Your task to perform on an android device: change timer sound Image 0: 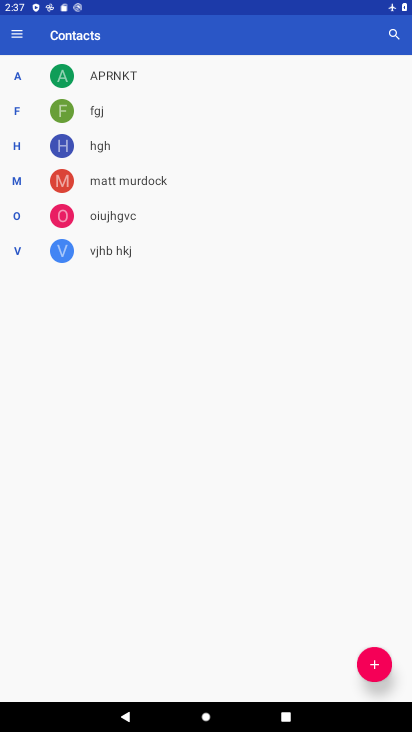
Step 0: press home button
Your task to perform on an android device: change timer sound Image 1: 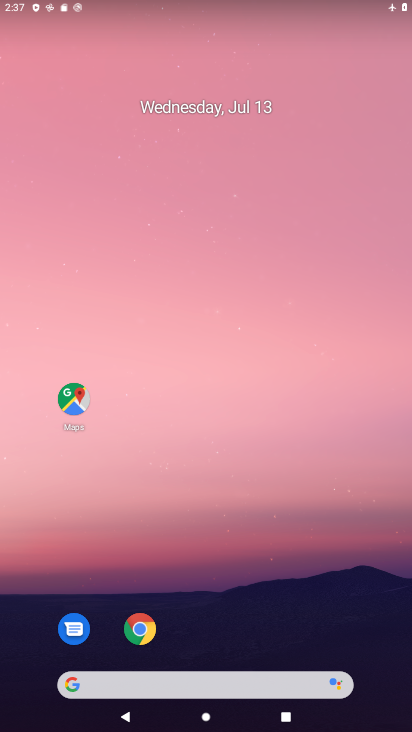
Step 1: drag from (238, 661) to (239, 83)
Your task to perform on an android device: change timer sound Image 2: 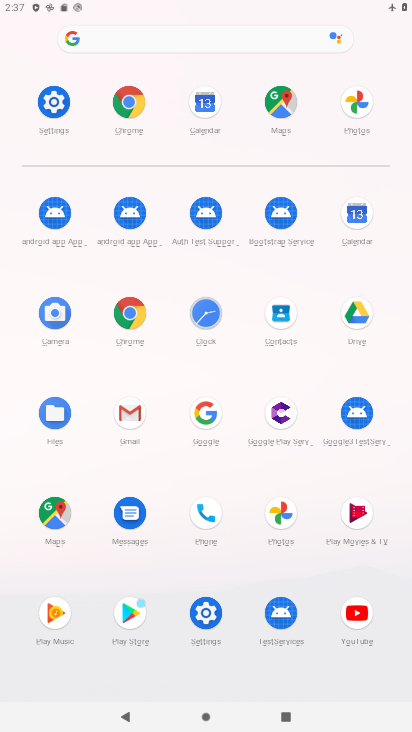
Step 2: click (215, 316)
Your task to perform on an android device: change timer sound Image 3: 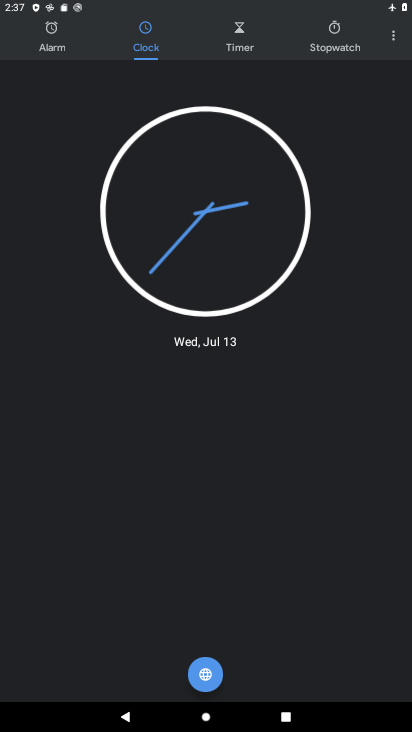
Step 3: click (388, 35)
Your task to perform on an android device: change timer sound Image 4: 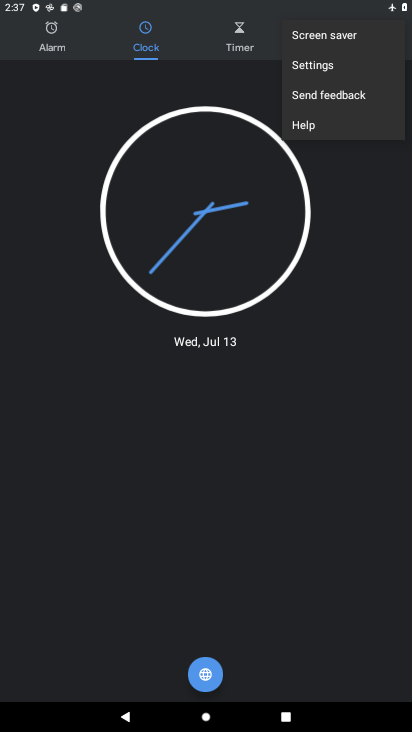
Step 4: click (309, 64)
Your task to perform on an android device: change timer sound Image 5: 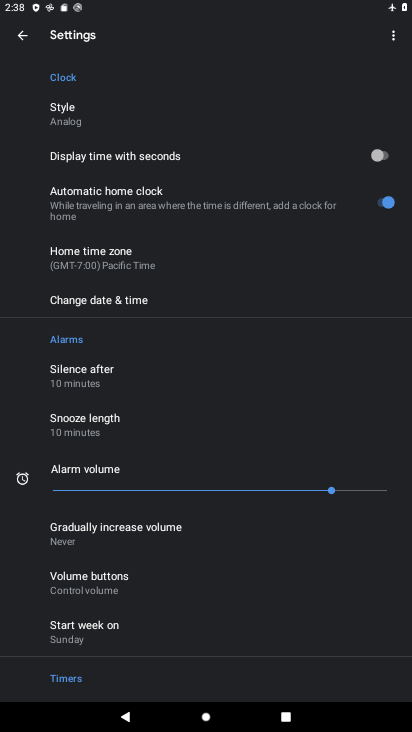
Step 5: drag from (176, 628) to (178, 463)
Your task to perform on an android device: change timer sound Image 6: 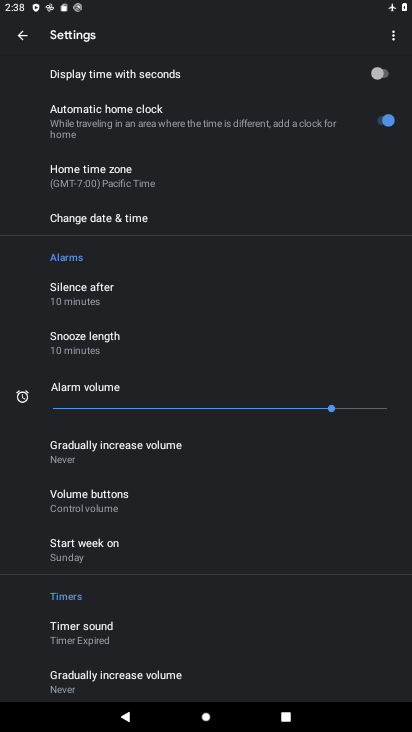
Step 6: click (120, 625)
Your task to perform on an android device: change timer sound Image 7: 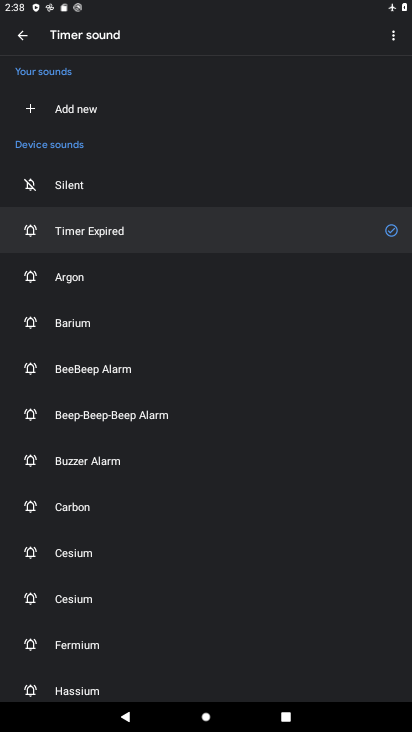
Step 7: click (91, 284)
Your task to perform on an android device: change timer sound Image 8: 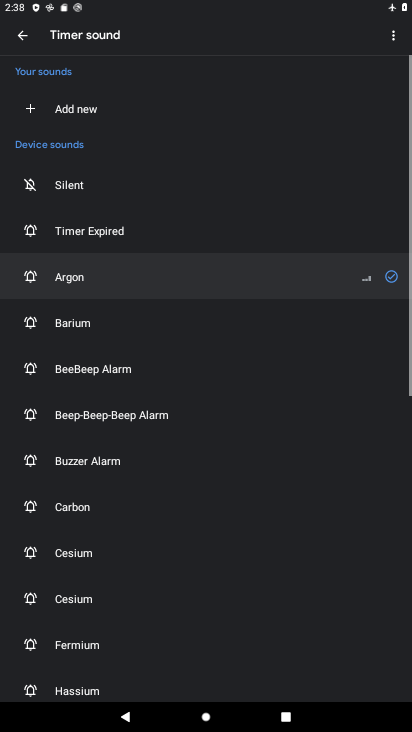
Step 8: task complete